Your task to perform on an android device: change the clock style Image 0: 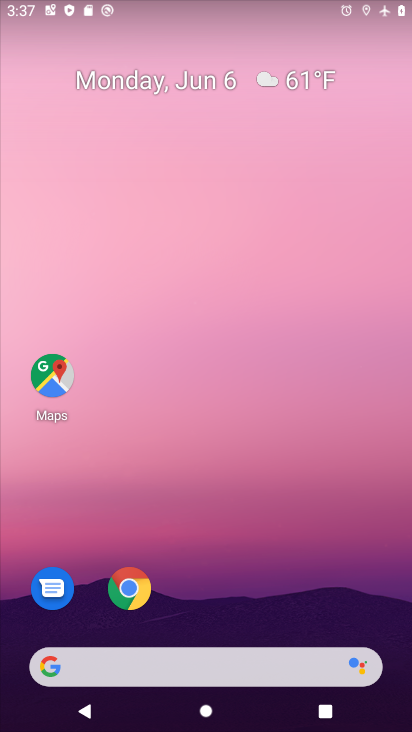
Step 0: click (149, 49)
Your task to perform on an android device: change the clock style Image 1: 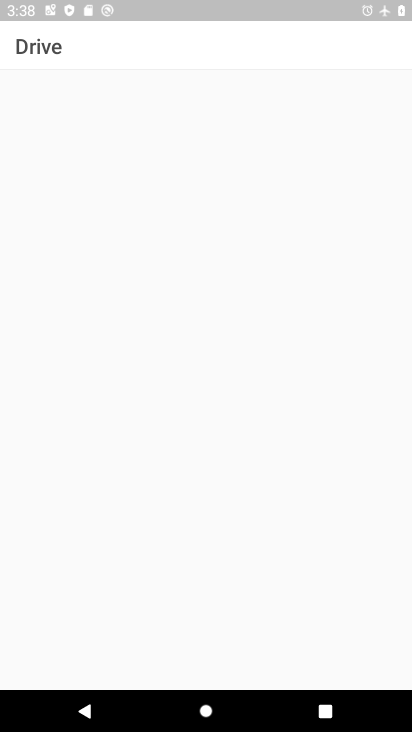
Step 1: press home button
Your task to perform on an android device: change the clock style Image 2: 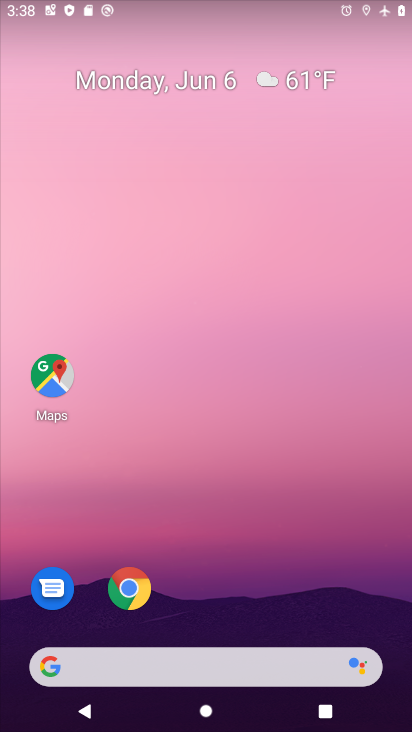
Step 2: drag from (260, 606) to (222, 318)
Your task to perform on an android device: change the clock style Image 3: 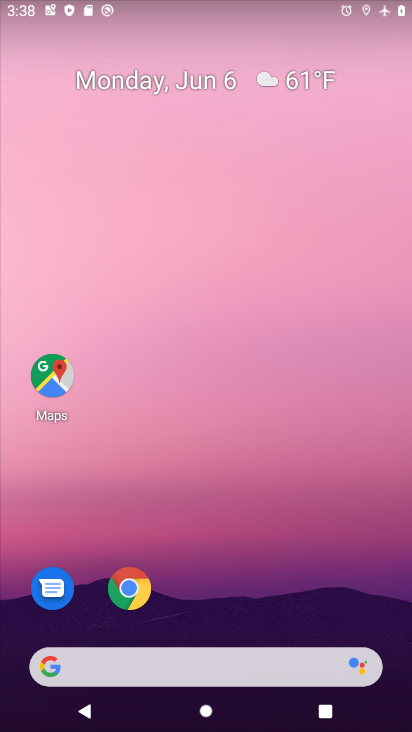
Step 3: drag from (254, 593) to (224, 182)
Your task to perform on an android device: change the clock style Image 4: 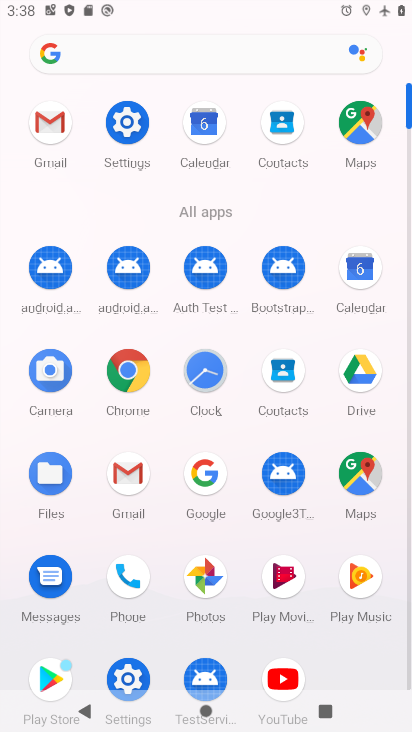
Step 4: click (208, 390)
Your task to perform on an android device: change the clock style Image 5: 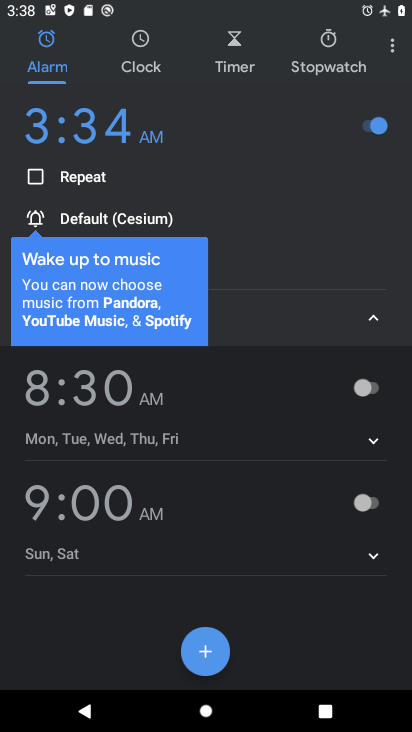
Step 5: click (391, 60)
Your task to perform on an android device: change the clock style Image 6: 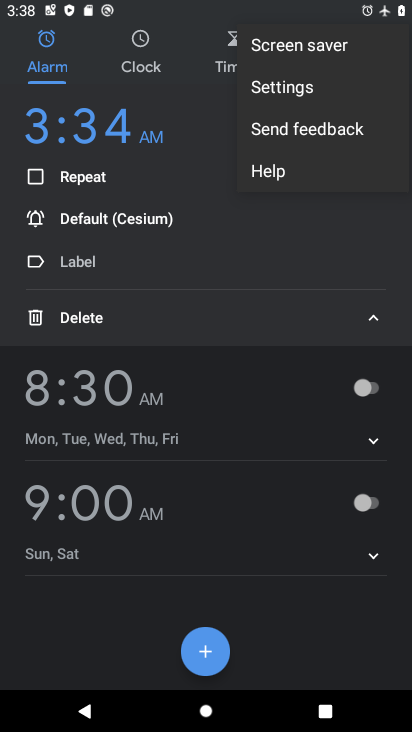
Step 6: click (293, 95)
Your task to perform on an android device: change the clock style Image 7: 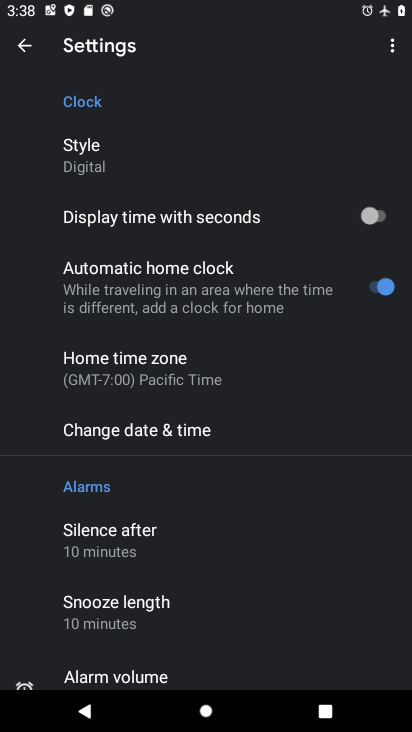
Step 7: click (215, 177)
Your task to perform on an android device: change the clock style Image 8: 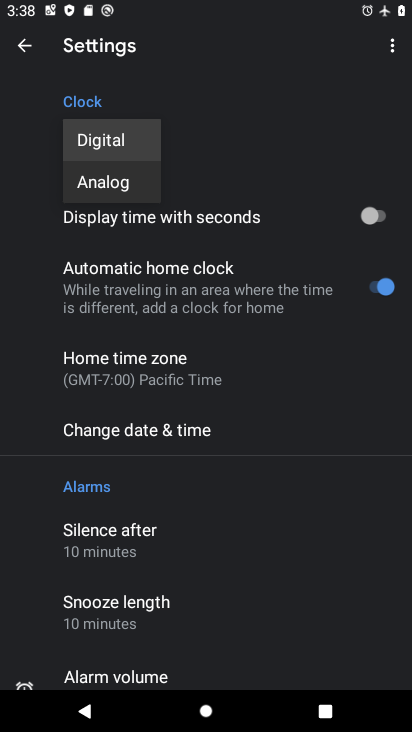
Step 8: click (145, 185)
Your task to perform on an android device: change the clock style Image 9: 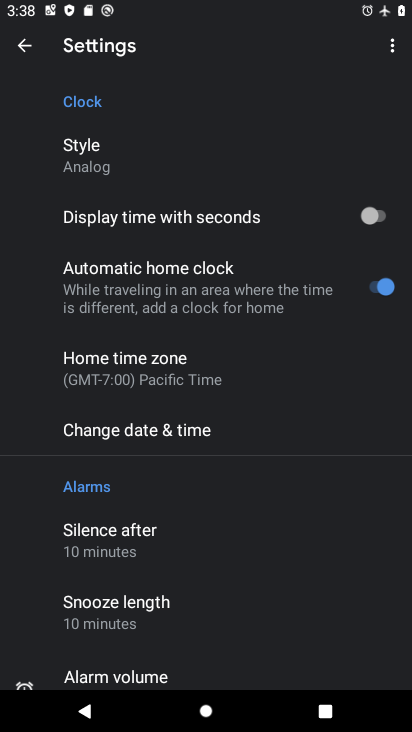
Step 9: task complete